Your task to perform on an android device: Show me recent news Image 0: 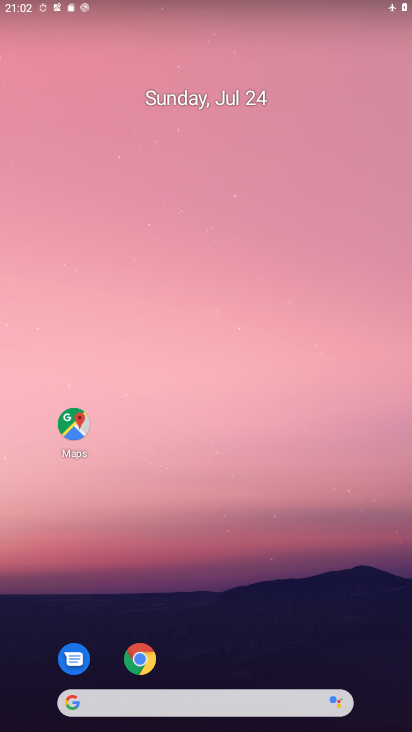
Step 0: drag from (3, 217) to (404, 165)
Your task to perform on an android device: Show me recent news Image 1: 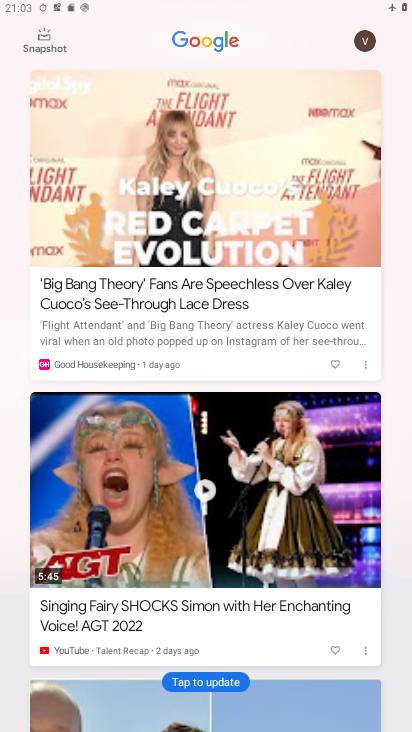
Step 1: task complete